Your task to perform on an android device: Do I have any events this weekend? Image 0: 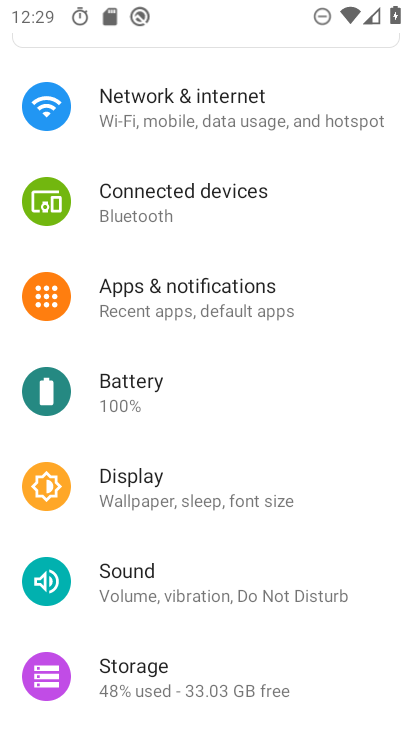
Step 0: press home button
Your task to perform on an android device: Do I have any events this weekend? Image 1: 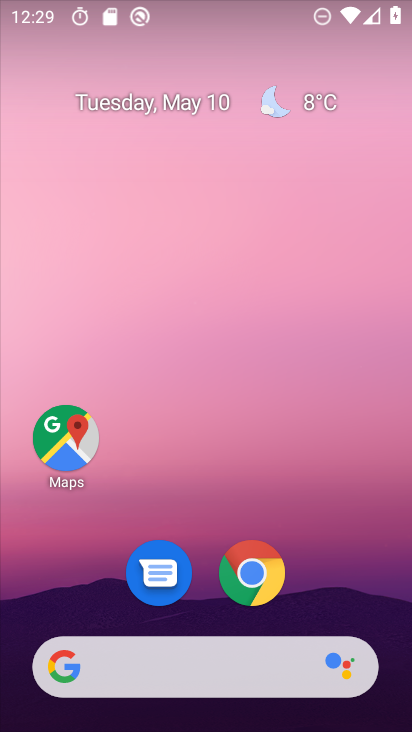
Step 1: drag from (217, 615) to (248, 72)
Your task to perform on an android device: Do I have any events this weekend? Image 2: 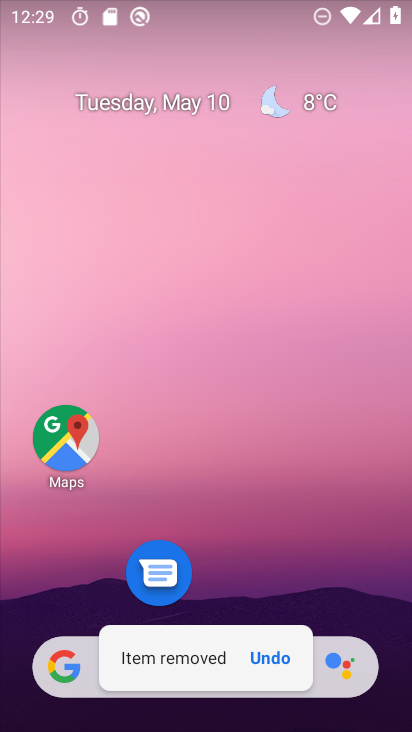
Step 2: drag from (222, 612) to (227, 0)
Your task to perform on an android device: Do I have any events this weekend? Image 3: 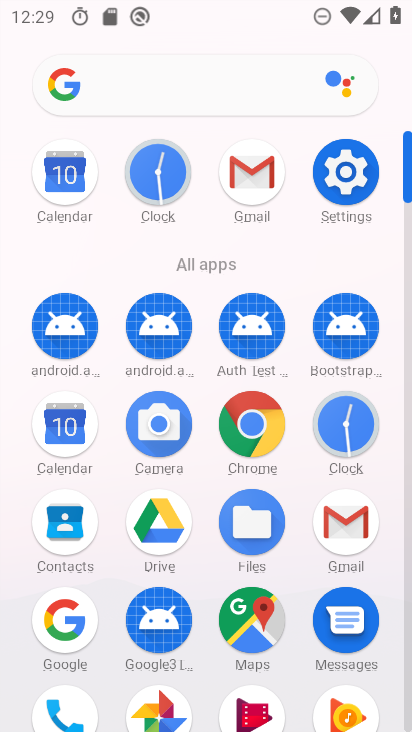
Step 3: click (78, 441)
Your task to perform on an android device: Do I have any events this weekend? Image 4: 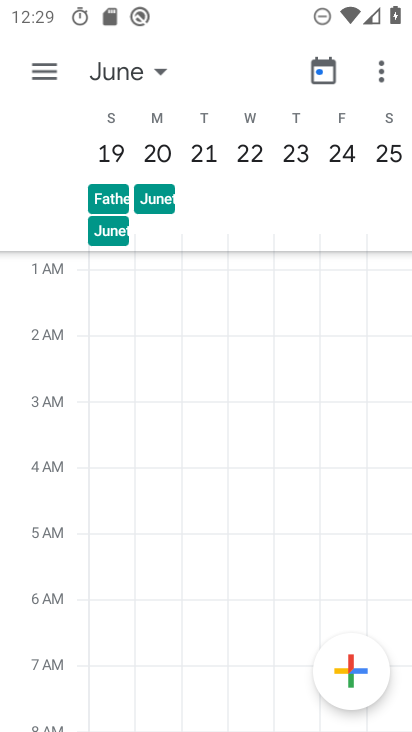
Step 4: click (132, 76)
Your task to perform on an android device: Do I have any events this weekend? Image 5: 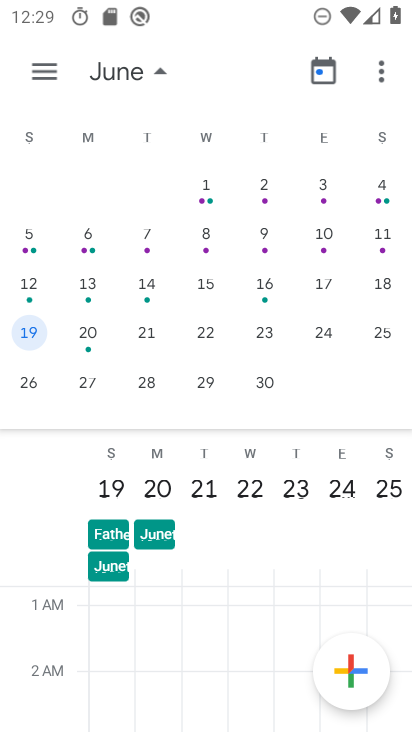
Step 5: drag from (83, 317) to (393, 319)
Your task to perform on an android device: Do I have any events this weekend? Image 6: 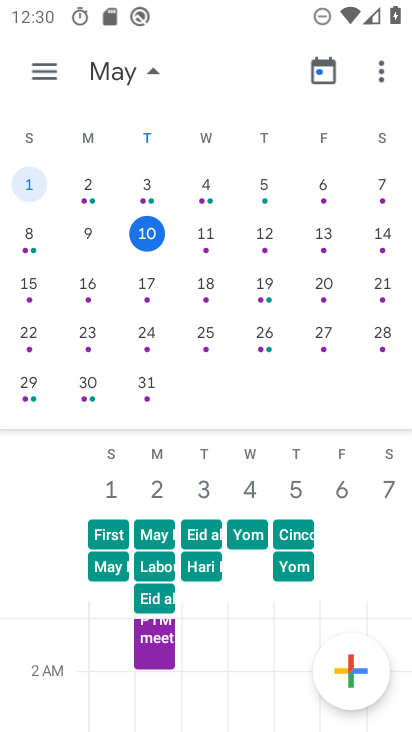
Step 6: click (55, 78)
Your task to perform on an android device: Do I have any events this weekend? Image 7: 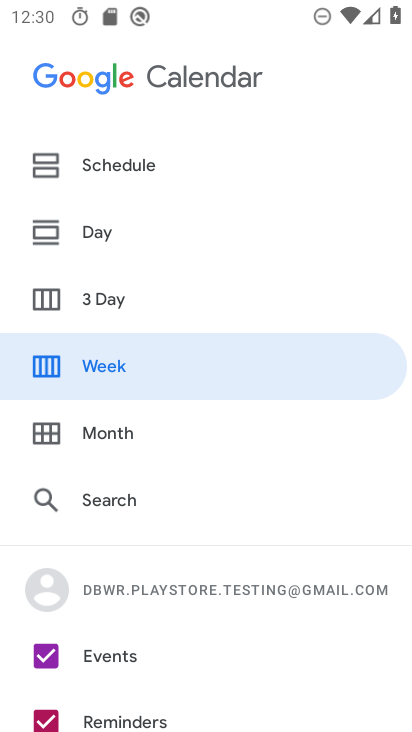
Step 7: drag from (100, 549) to (174, 159)
Your task to perform on an android device: Do I have any events this weekend? Image 8: 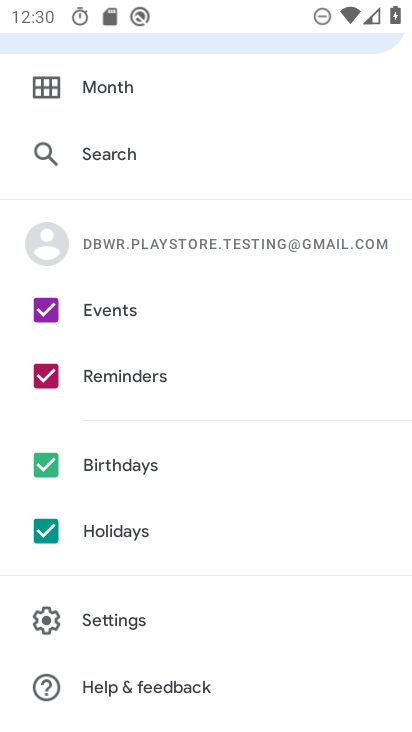
Step 8: click (133, 455)
Your task to perform on an android device: Do I have any events this weekend? Image 9: 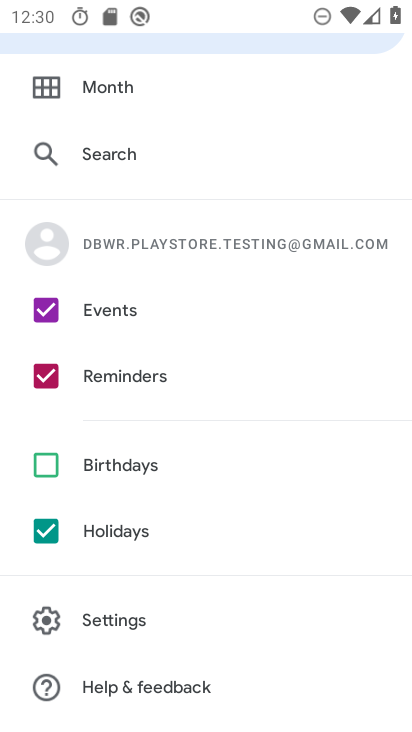
Step 9: click (99, 536)
Your task to perform on an android device: Do I have any events this weekend? Image 10: 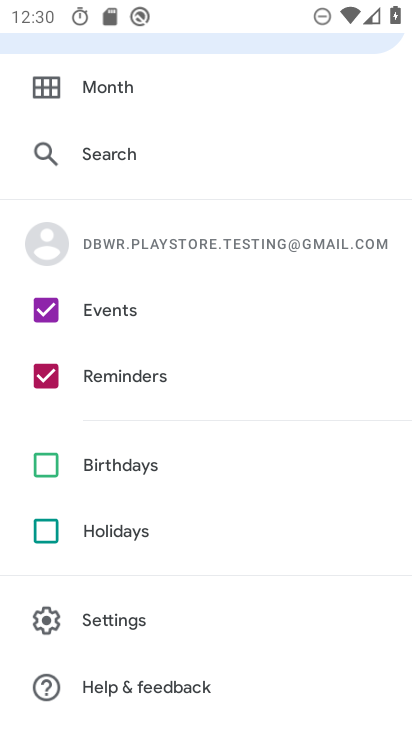
Step 10: click (103, 369)
Your task to perform on an android device: Do I have any events this weekend? Image 11: 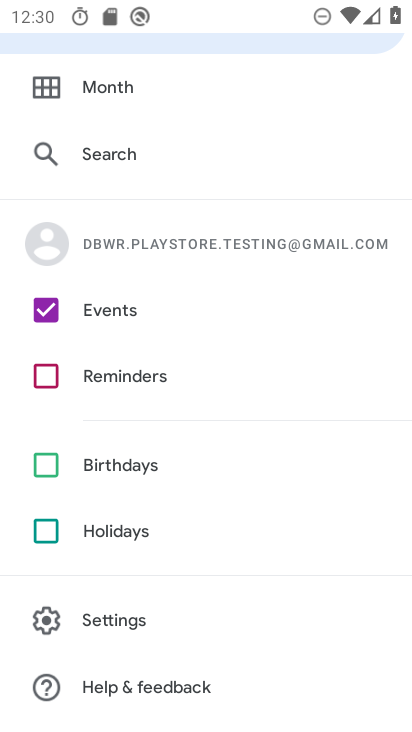
Step 11: click (170, 46)
Your task to perform on an android device: Do I have any events this weekend? Image 12: 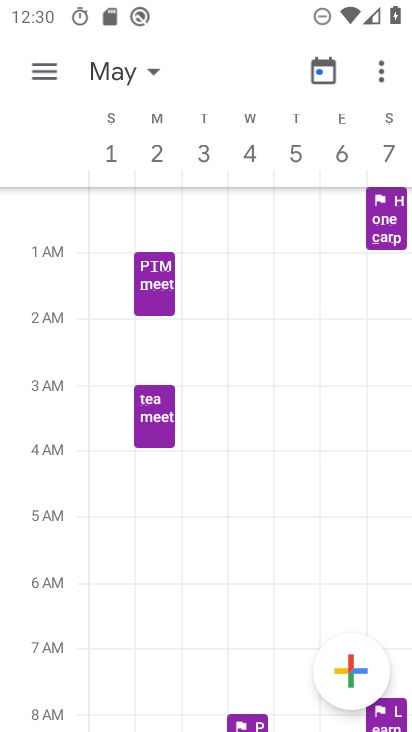
Step 12: task complete